Your task to perform on an android device: manage bookmarks in the chrome app Image 0: 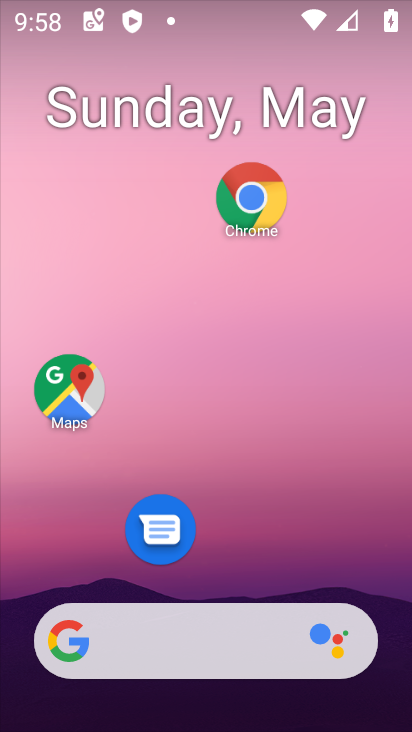
Step 0: click (256, 199)
Your task to perform on an android device: manage bookmarks in the chrome app Image 1: 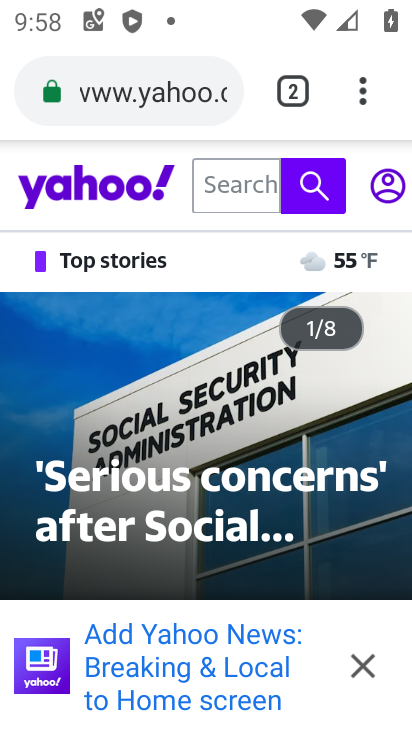
Step 1: click (356, 85)
Your task to perform on an android device: manage bookmarks in the chrome app Image 2: 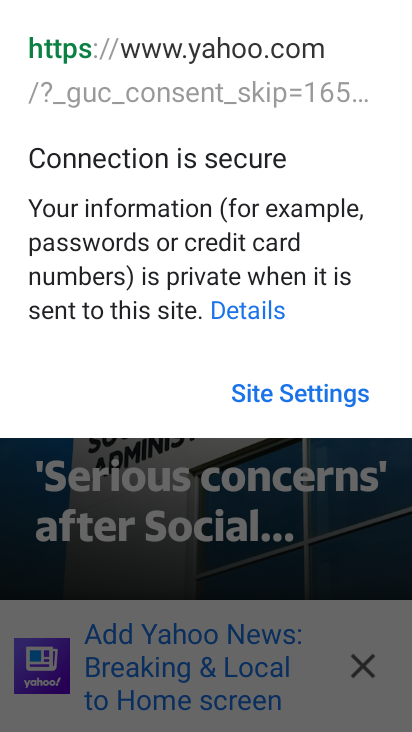
Step 2: click (147, 570)
Your task to perform on an android device: manage bookmarks in the chrome app Image 3: 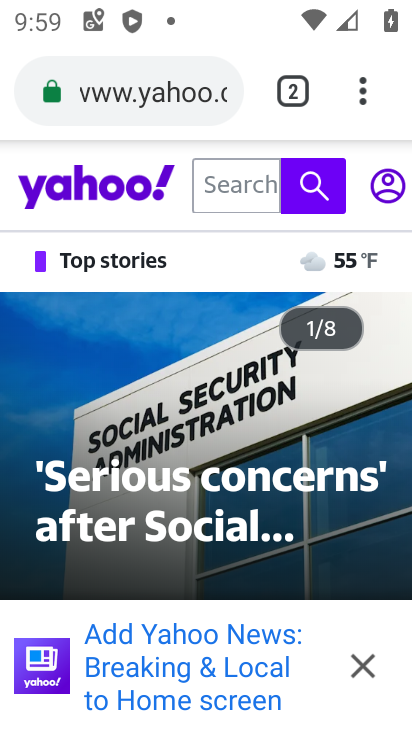
Step 3: click (358, 97)
Your task to perform on an android device: manage bookmarks in the chrome app Image 4: 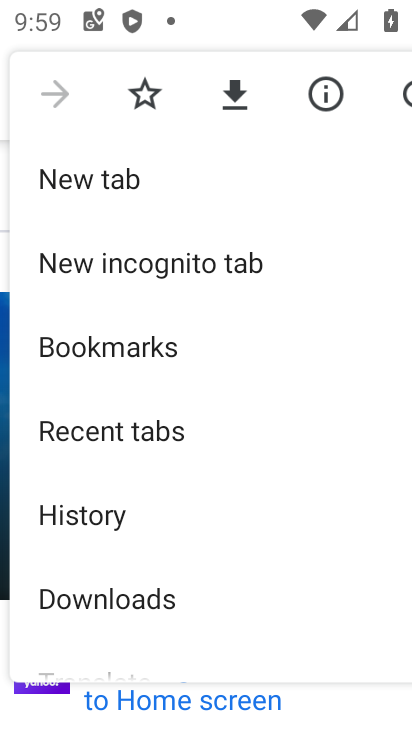
Step 4: click (87, 338)
Your task to perform on an android device: manage bookmarks in the chrome app Image 5: 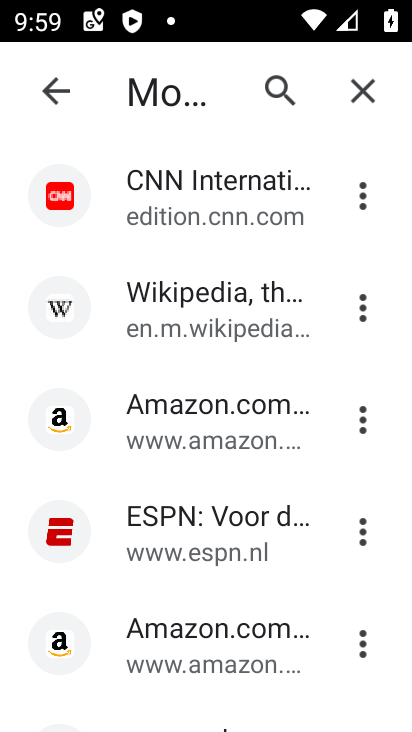
Step 5: click (359, 188)
Your task to perform on an android device: manage bookmarks in the chrome app Image 6: 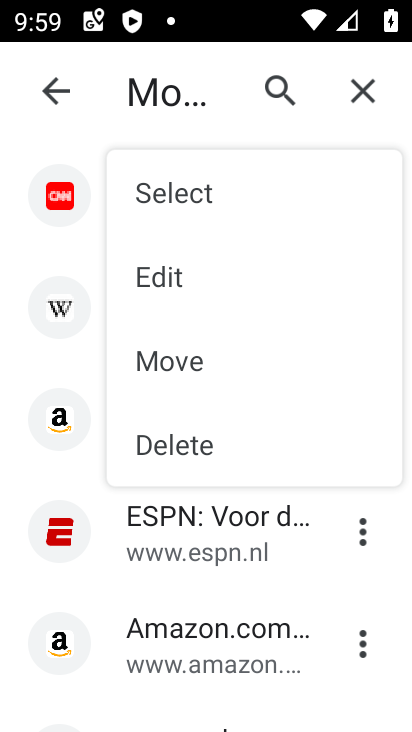
Step 6: click (139, 443)
Your task to perform on an android device: manage bookmarks in the chrome app Image 7: 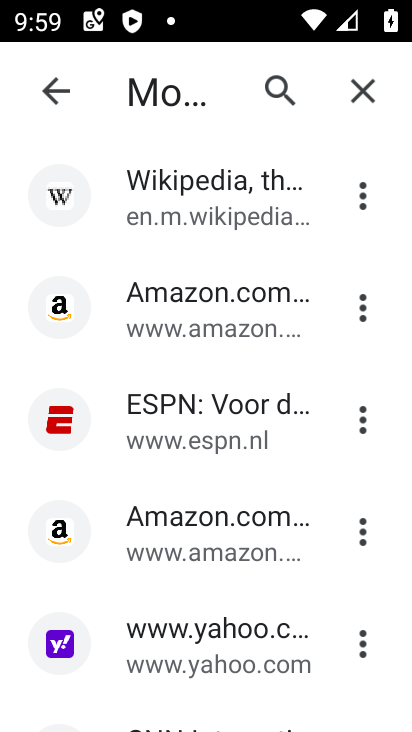
Step 7: task complete